Your task to perform on an android device: open wifi settings Image 0: 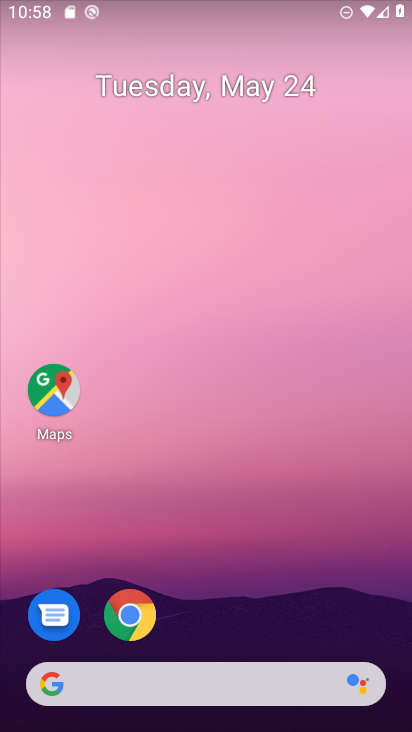
Step 0: press home button
Your task to perform on an android device: open wifi settings Image 1: 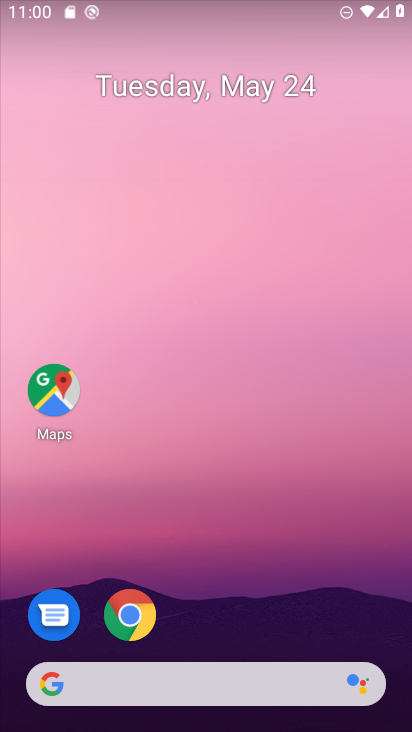
Step 1: drag from (275, 702) to (289, 135)
Your task to perform on an android device: open wifi settings Image 2: 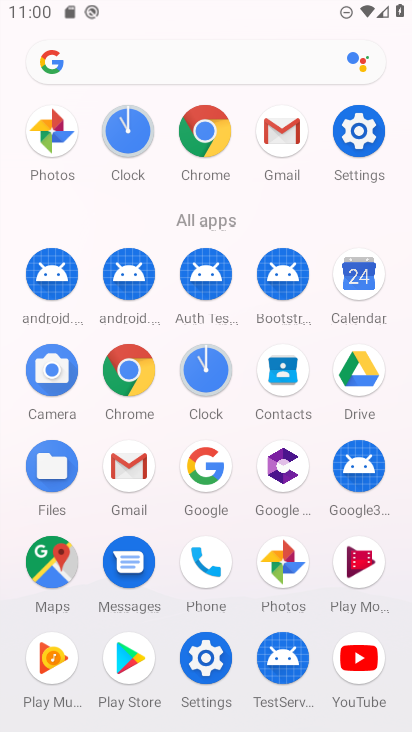
Step 2: click (348, 129)
Your task to perform on an android device: open wifi settings Image 3: 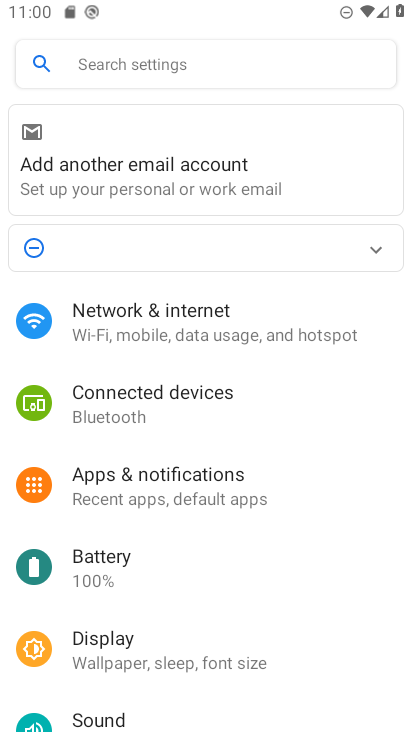
Step 3: click (155, 314)
Your task to perform on an android device: open wifi settings Image 4: 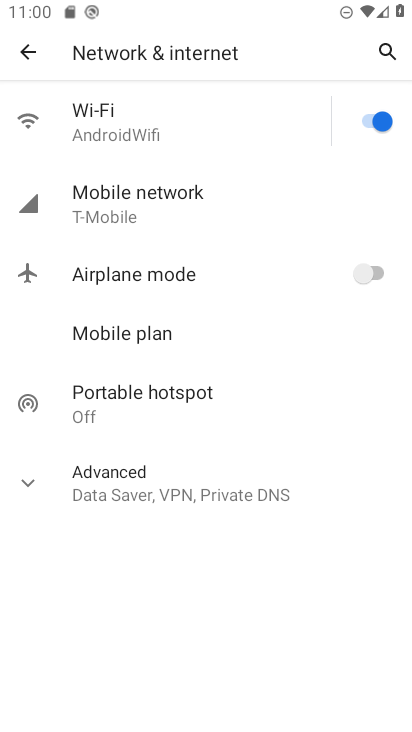
Step 4: click (163, 127)
Your task to perform on an android device: open wifi settings Image 5: 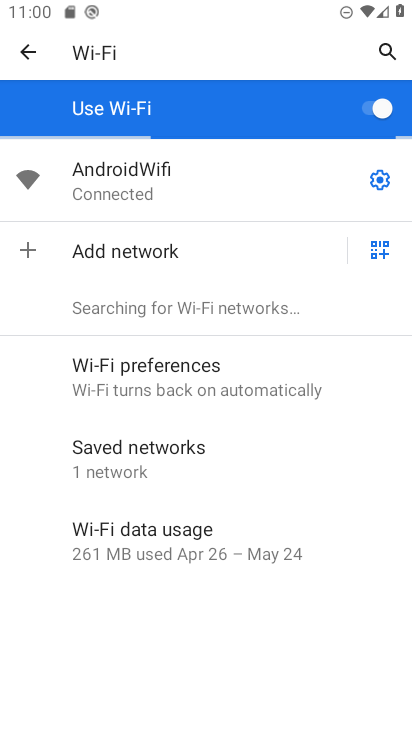
Step 5: task complete